Your task to perform on an android device: Open the stopwatch Image 0: 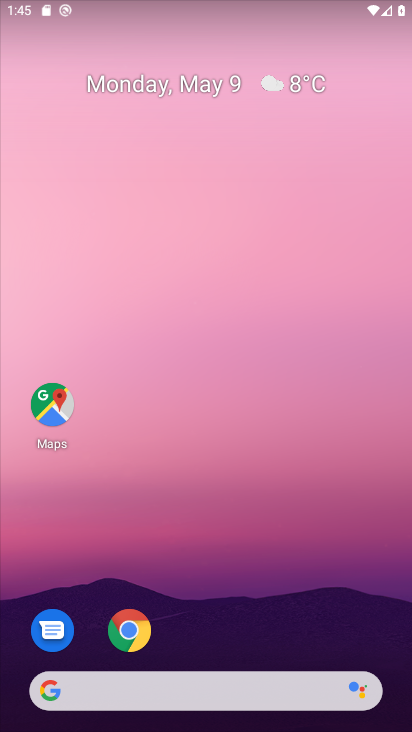
Step 0: drag from (227, 519) to (348, 55)
Your task to perform on an android device: Open the stopwatch Image 1: 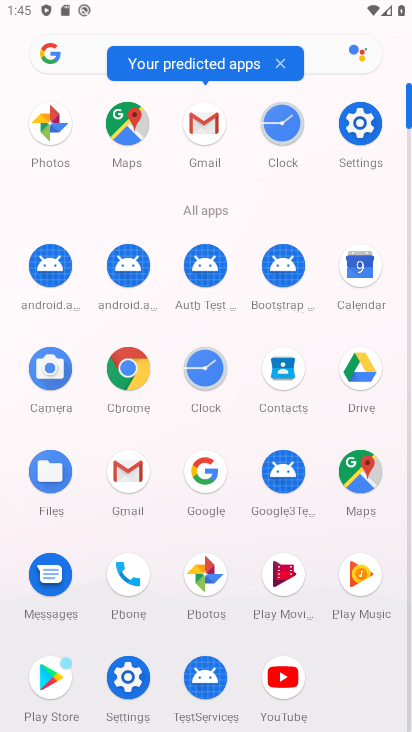
Step 1: click (278, 132)
Your task to perform on an android device: Open the stopwatch Image 2: 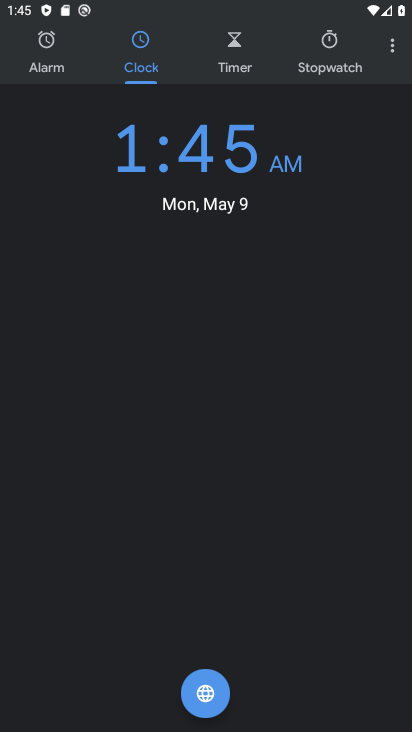
Step 2: click (311, 54)
Your task to perform on an android device: Open the stopwatch Image 3: 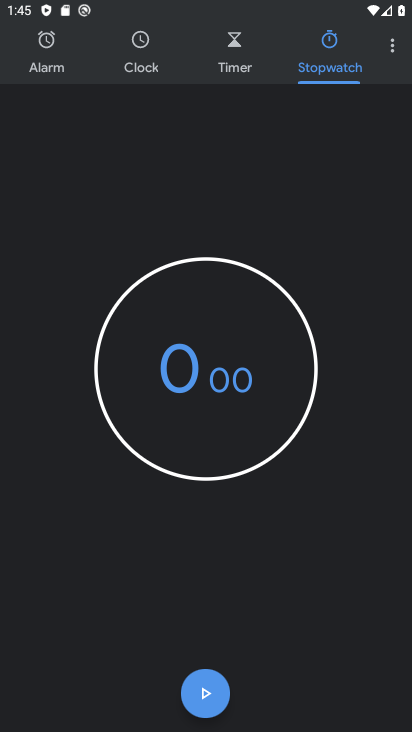
Step 3: task complete